Your task to perform on an android device: Open calendar and show me the third week of next month Image 0: 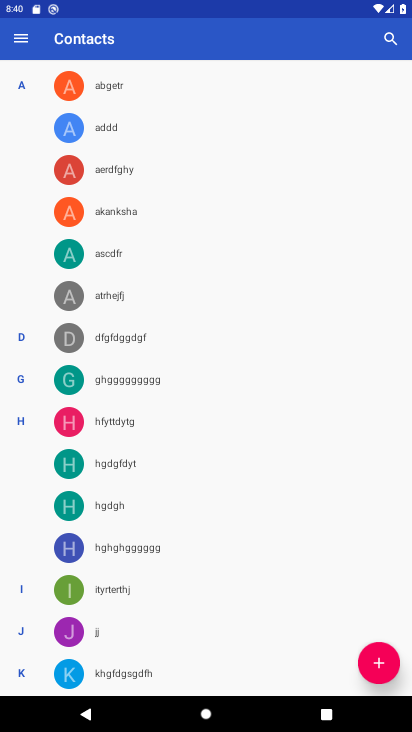
Step 0: press back button
Your task to perform on an android device: Open calendar and show me the third week of next month Image 1: 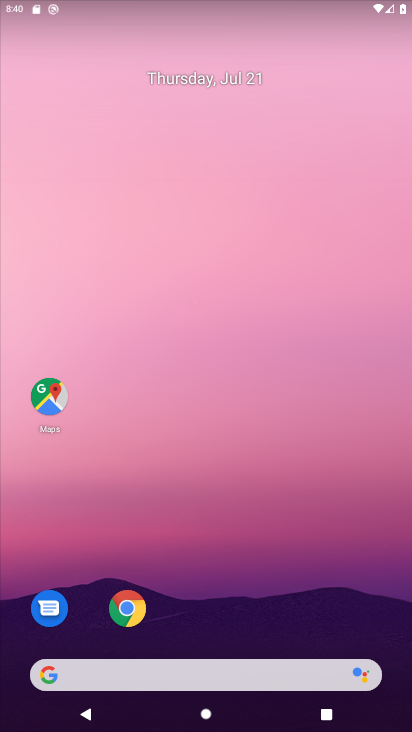
Step 1: drag from (245, 601) to (197, 138)
Your task to perform on an android device: Open calendar and show me the third week of next month Image 2: 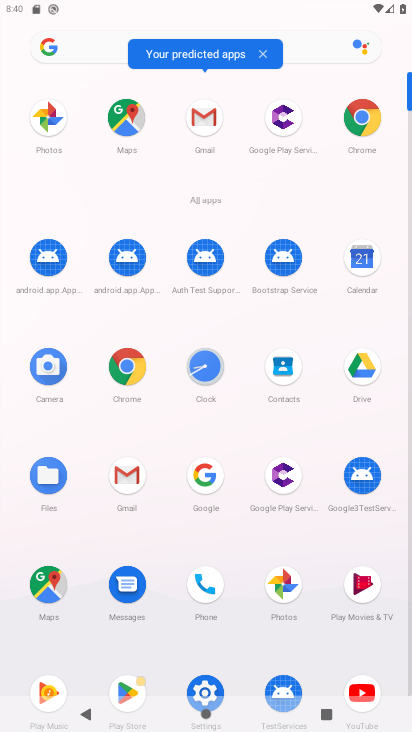
Step 2: click (366, 268)
Your task to perform on an android device: Open calendar and show me the third week of next month Image 3: 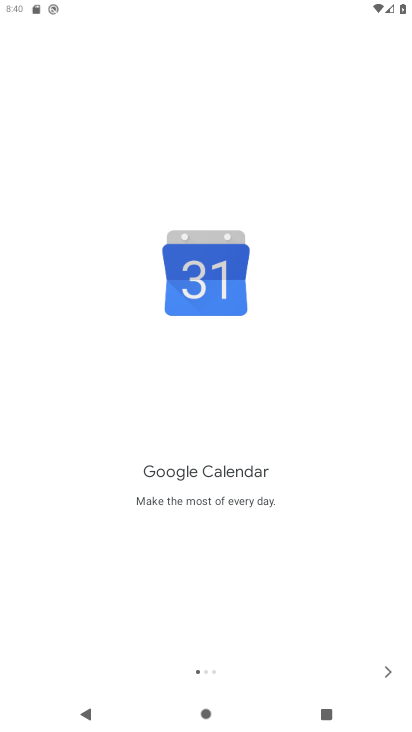
Step 3: click (395, 673)
Your task to perform on an android device: Open calendar and show me the third week of next month Image 4: 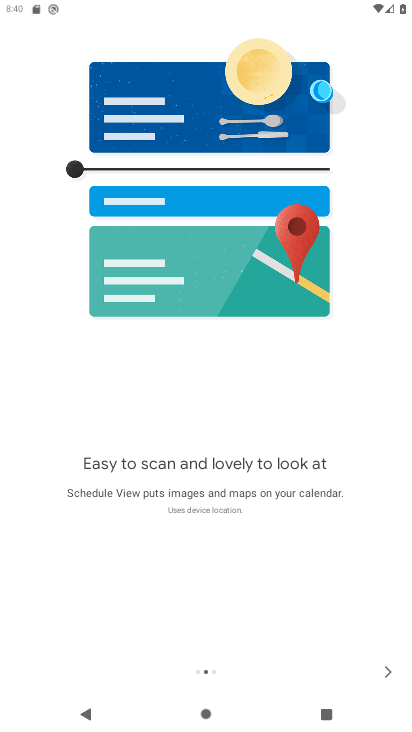
Step 4: click (387, 673)
Your task to perform on an android device: Open calendar and show me the third week of next month Image 5: 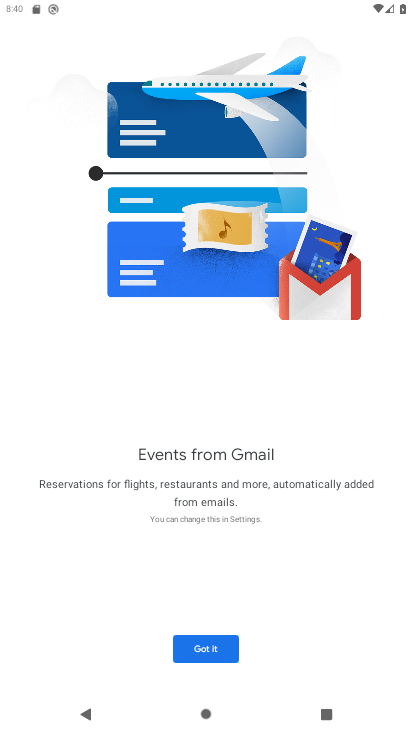
Step 5: click (193, 643)
Your task to perform on an android device: Open calendar and show me the third week of next month Image 6: 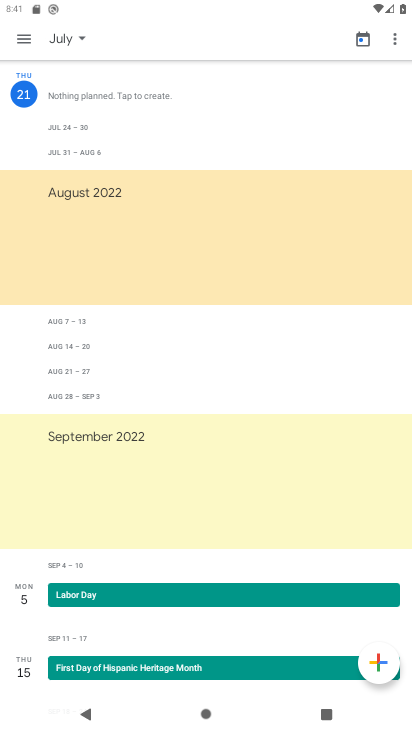
Step 6: click (68, 30)
Your task to perform on an android device: Open calendar and show me the third week of next month Image 7: 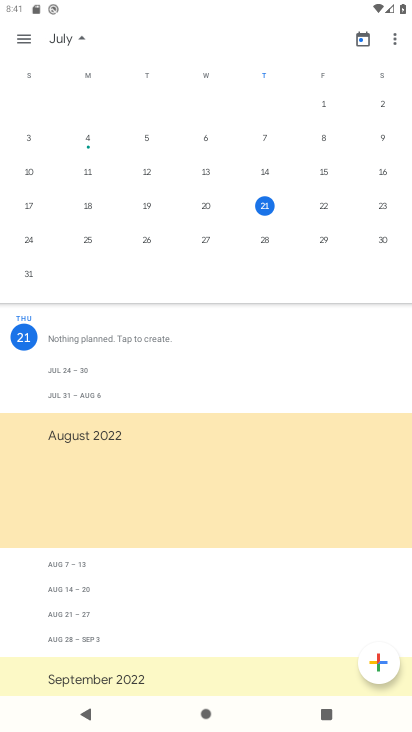
Step 7: drag from (271, 195) to (137, 209)
Your task to perform on an android device: Open calendar and show me the third week of next month Image 8: 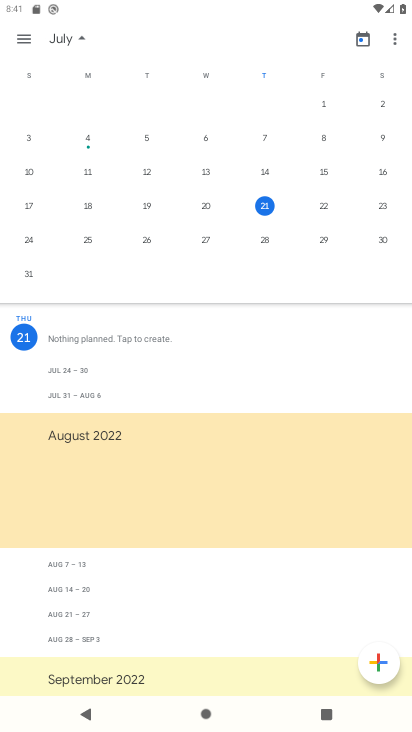
Step 8: drag from (291, 173) to (1, 195)
Your task to perform on an android device: Open calendar and show me the third week of next month Image 9: 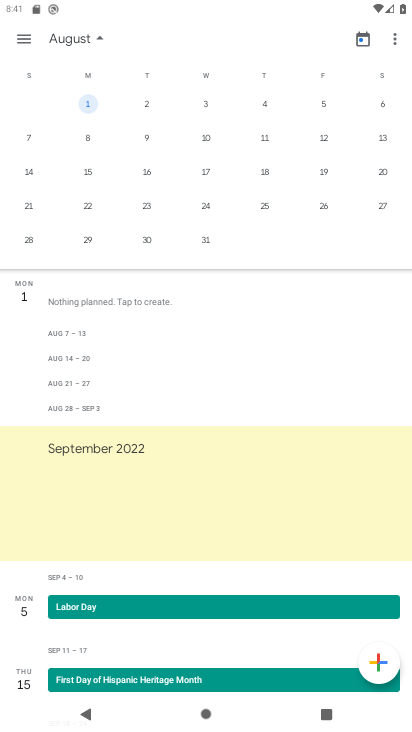
Step 9: click (27, 208)
Your task to perform on an android device: Open calendar and show me the third week of next month Image 10: 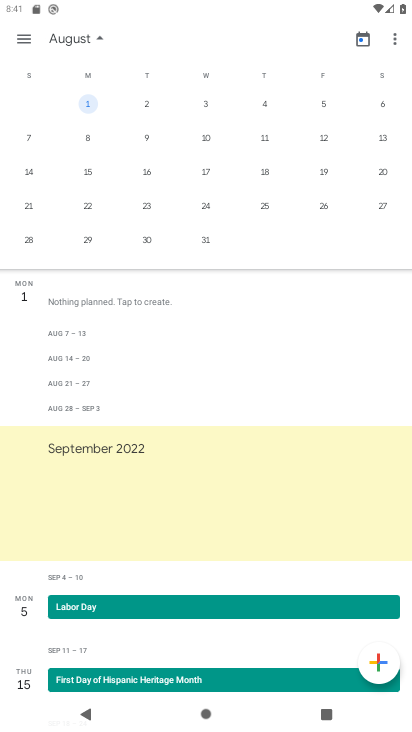
Step 10: click (27, 208)
Your task to perform on an android device: Open calendar and show me the third week of next month Image 11: 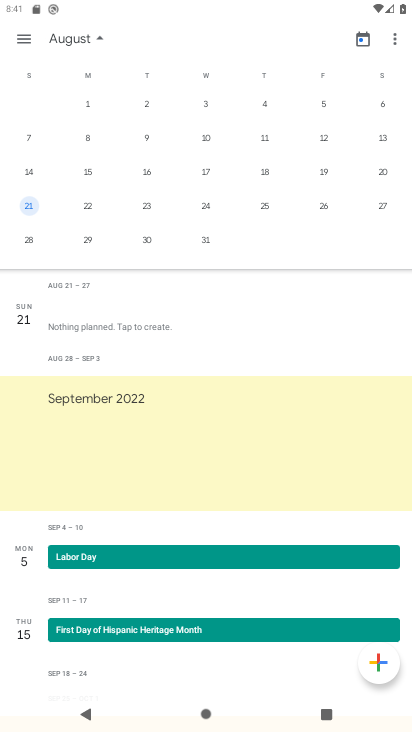
Step 11: click (24, 42)
Your task to perform on an android device: Open calendar and show me the third week of next month Image 12: 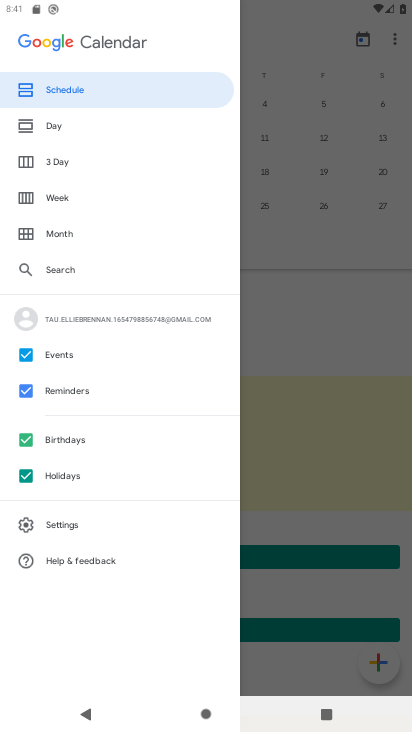
Step 12: click (42, 200)
Your task to perform on an android device: Open calendar and show me the third week of next month Image 13: 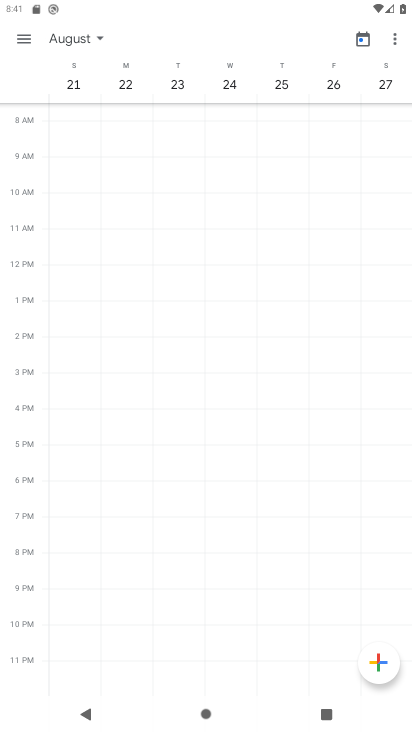
Step 13: task complete